Your task to perform on an android device: Open the stopwatch Image 0: 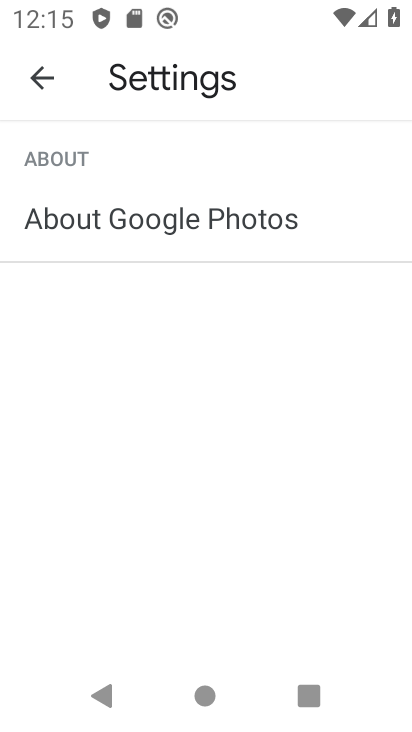
Step 0: press home button
Your task to perform on an android device: Open the stopwatch Image 1: 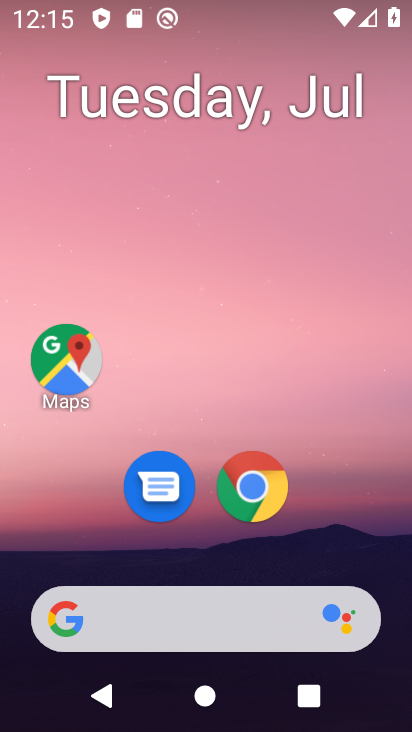
Step 1: drag from (376, 529) to (359, 98)
Your task to perform on an android device: Open the stopwatch Image 2: 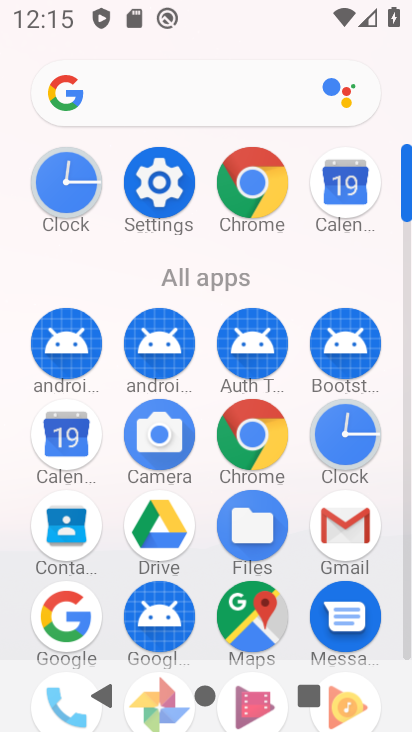
Step 2: click (347, 440)
Your task to perform on an android device: Open the stopwatch Image 3: 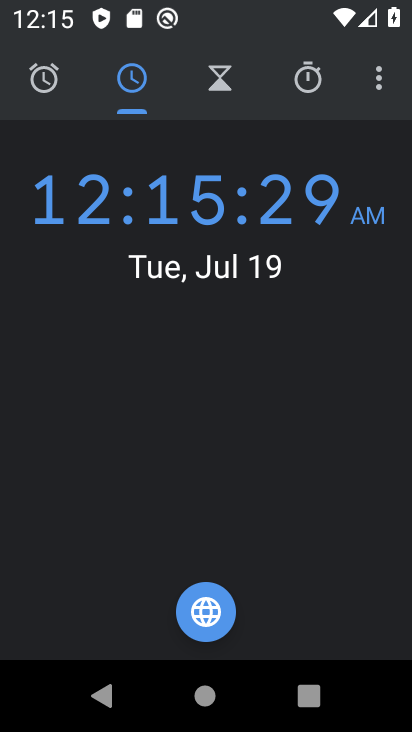
Step 3: click (308, 92)
Your task to perform on an android device: Open the stopwatch Image 4: 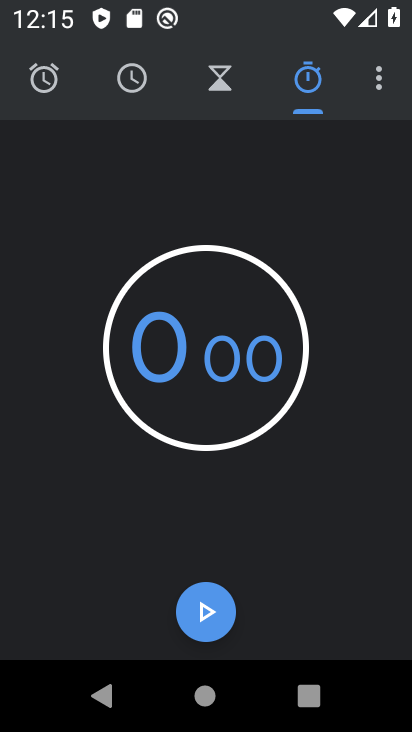
Step 4: task complete